Your task to perform on an android device: Search for hotels in Tokyo Image 0: 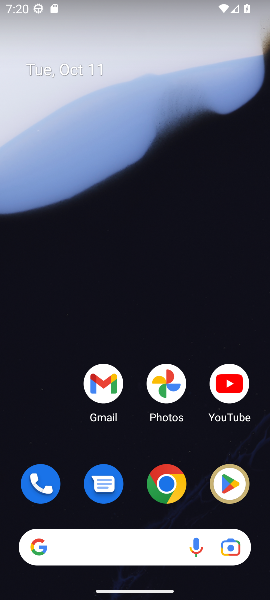
Step 0: drag from (157, 496) to (71, 10)
Your task to perform on an android device: Search for hotels in Tokyo Image 1: 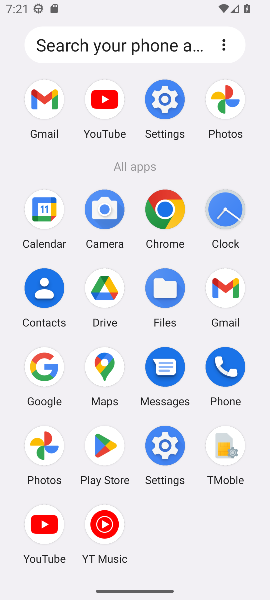
Step 1: click (164, 211)
Your task to perform on an android device: Search for hotels in Tokyo Image 2: 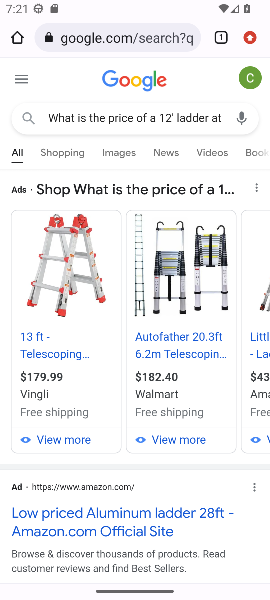
Step 2: click (135, 45)
Your task to perform on an android device: Search for hotels in Tokyo Image 3: 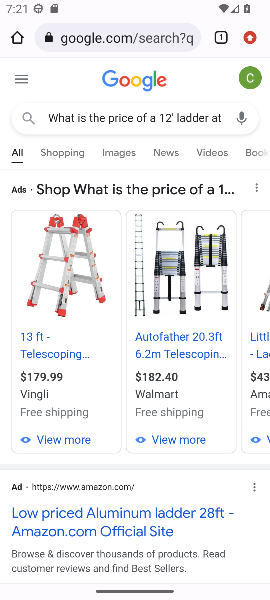
Step 3: click (142, 32)
Your task to perform on an android device: Search for hotels in Tokyo Image 4: 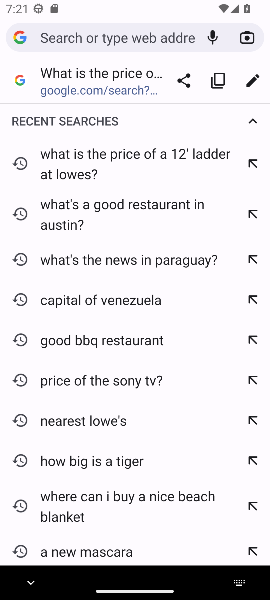
Step 4: type " hotels in Tokyo"
Your task to perform on an android device: Search for hotels in Tokyo Image 5: 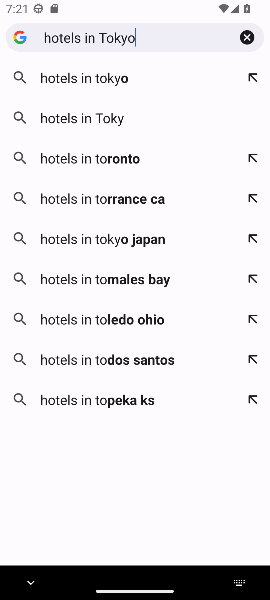
Step 5: press enter
Your task to perform on an android device: Search for hotels in Tokyo Image 6: 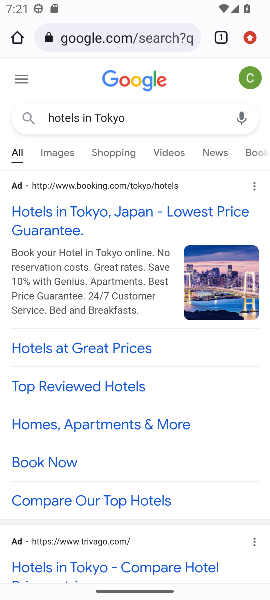
Step 6: click (83, 219)
Your task to perform on an android device: Search for hotels in Tokyo Image 7: 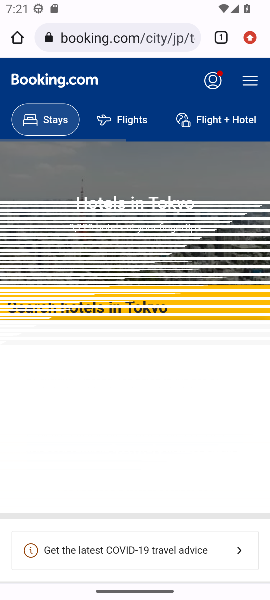
Step 7: task complete